Your task to perform on an android device: Go to ESPN.com Image 0: 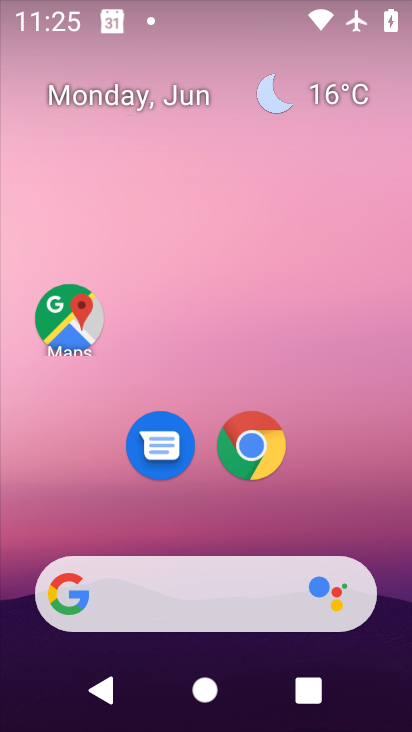
Step 0: click (52, 600)
Your task to perform on an android device: Go to ESPN.com Image 1: 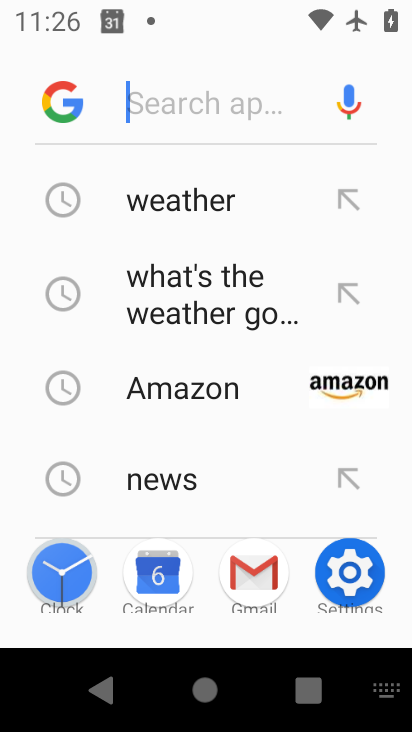
Step 1: type "ESPN.com"
Your task to perform on an android device: Go to ESPN.com Image 2: 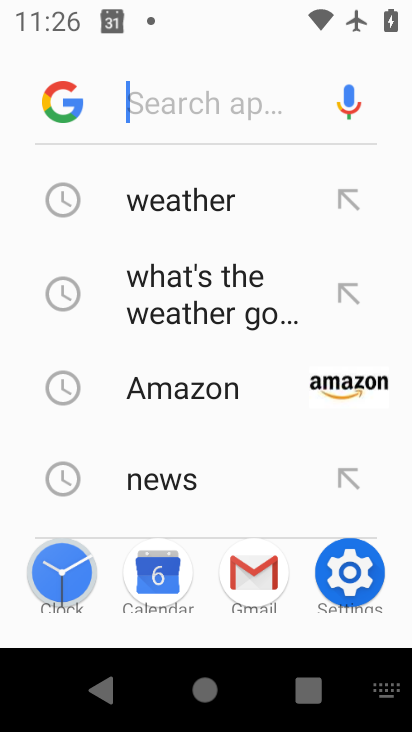
Step 2: click (254, 108)
Your task to perform on an android device: Go to ESPN.com Image 3: 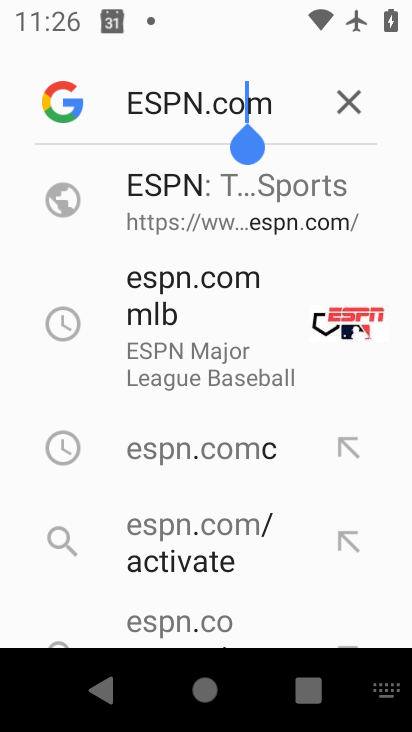
Step 3: click (194, 204)
Your task to perform on an android device: Go to ESPN.com Image 4: 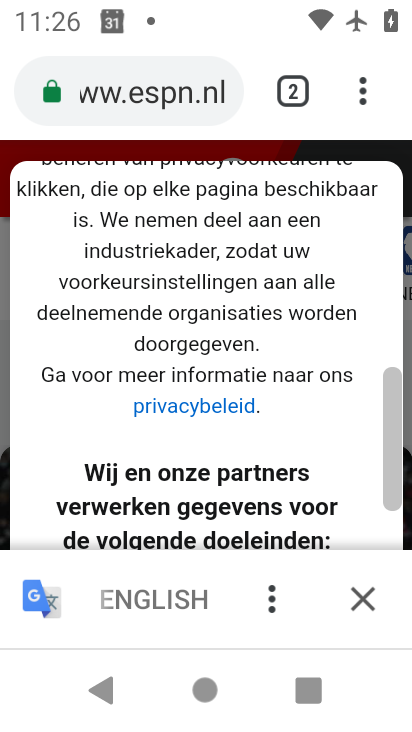
Step 4: task complete